Your task to perform on an android device: Open settings on Google Maps Image 0: 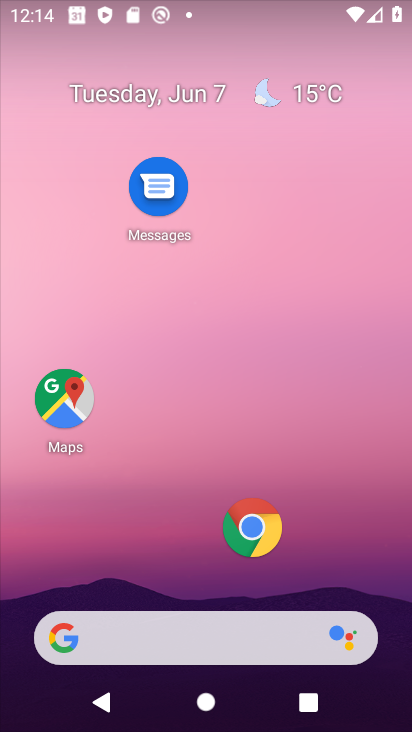
Step 0: click (85, 400)
Your task to perform on an android device: Open settings on Google Maps Image 1: 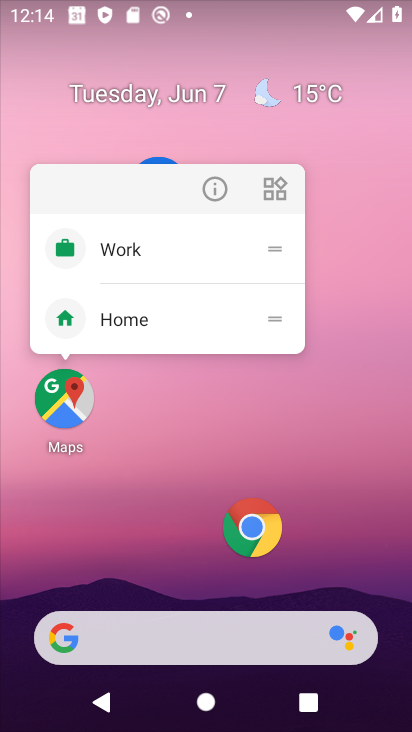
Step 1: click (66, 419)
Your task to perform on an android device: Open settings on Google Maps Image 2: 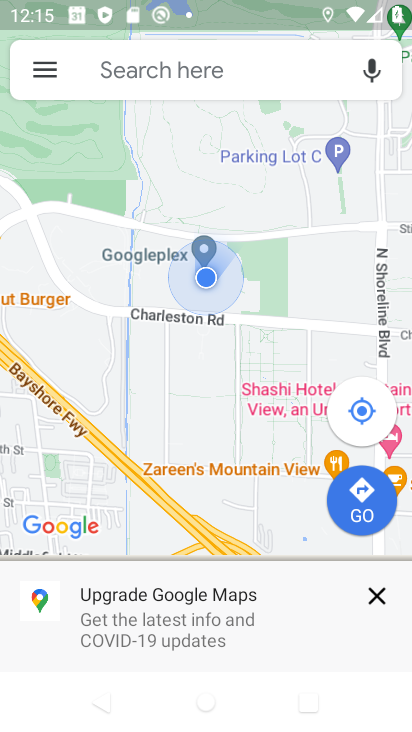
Step 2: click (43, 71)
Your task to perform on an android device: Open settings on Google Maps Image 3: 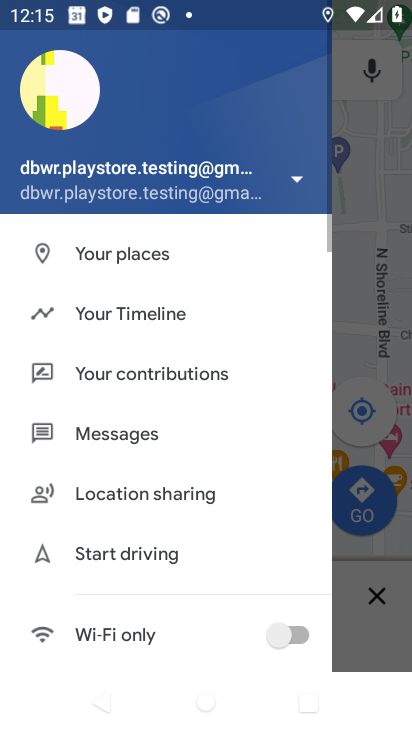
Step 3: drag from (126, 618) to (125, 339)
Your task to perform on an android device: Open settings on Google Maps Image 4: 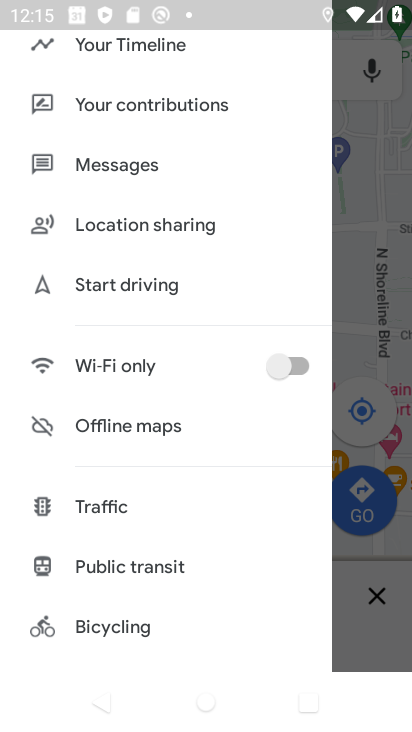
Step 4: drag from (119, 604) to (144, 327)
Your task to perform on an android device: Open settings on Google Maps Image 5: 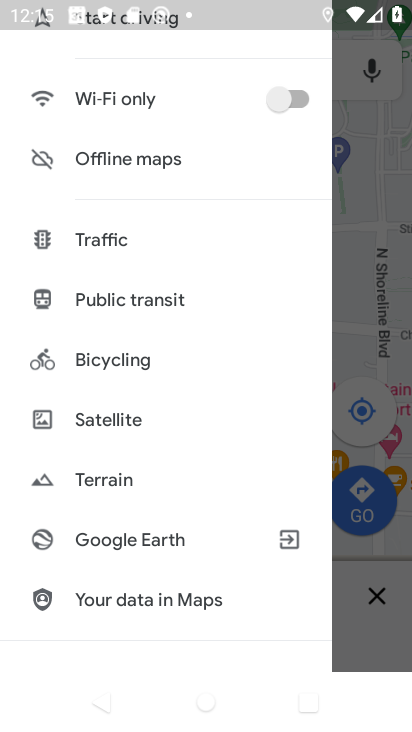
Step 5: drag from (140, 633) to (162, 196)
Your task to perform on an android device: Open settings on Google Maps Image 6: 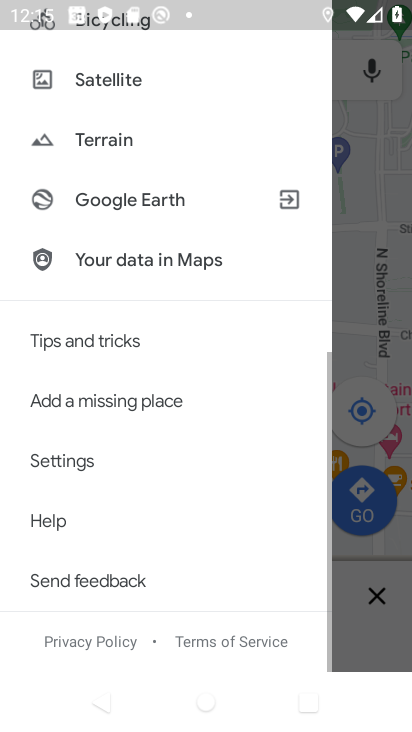
Step 6: click (55, 458)
Your task to perform on an android device: Open settings on Google Maps Image 7: 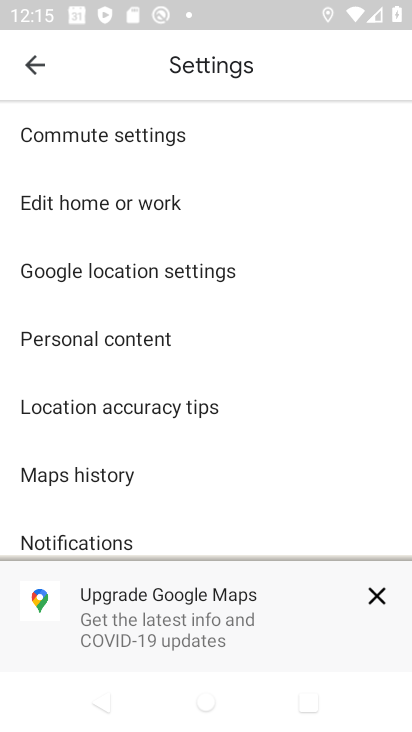
Step 7: task complete